Your task to perform on an android device: Show me recent news Image 0: 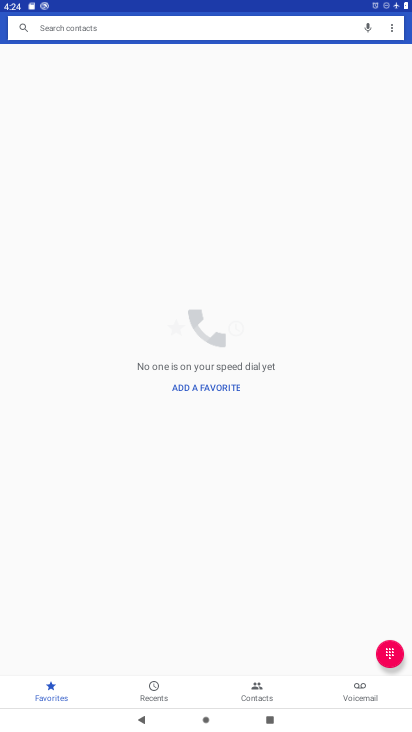
Step 0: press home button
Your task to perform on an android device: Show me recent news Image 1: 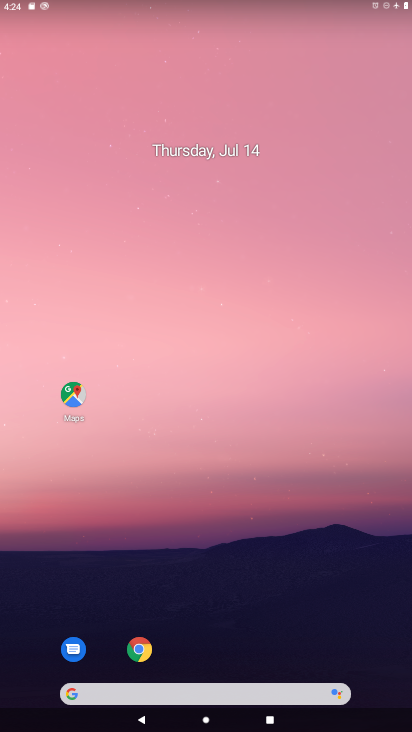
Step 1: drag from (241, 616) to (240, 110)
Your task to perform on an android device: Show me recent news Image 2: 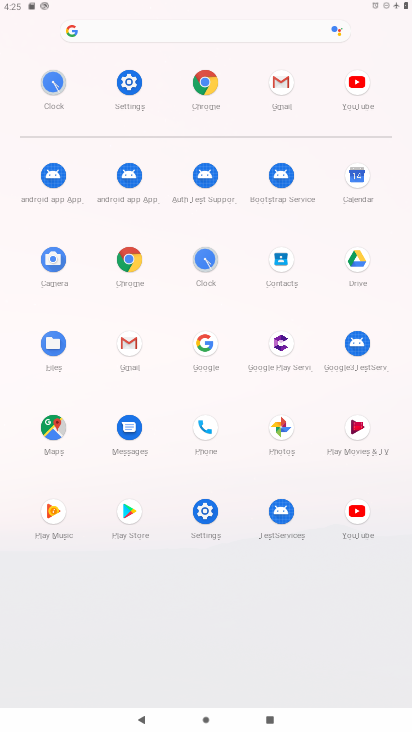
Step 2: click (197, 25)
Your task to perform on an android device: Show me recent news Image 3: 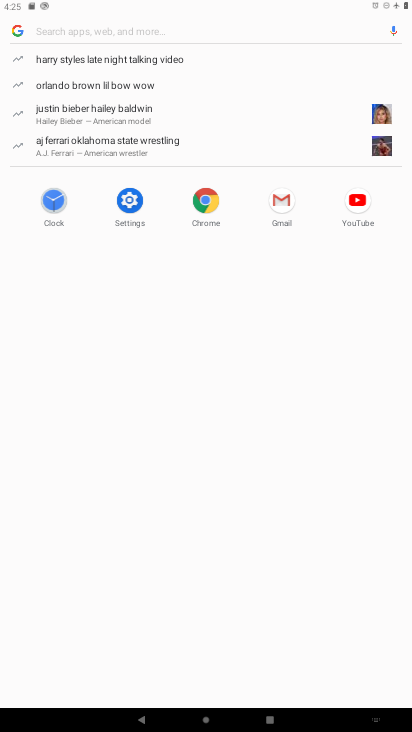
Step 3: type "recent news"
Your task to perform on an android device: Show me recent news Image 4: 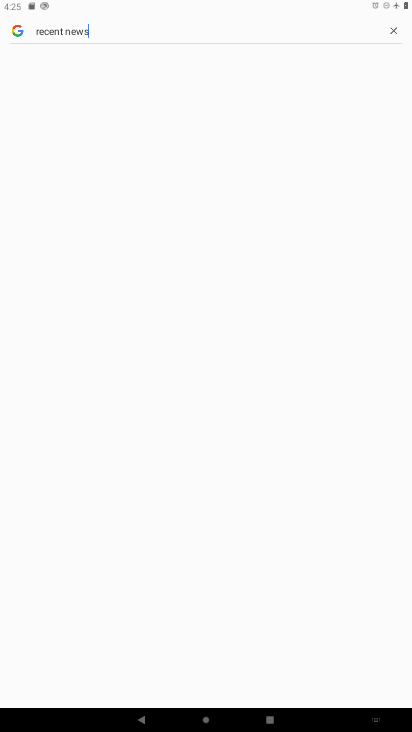
Step 4: task complete